Your task to perform on an android device: turn on showing notifications on the lock screen Image 0: 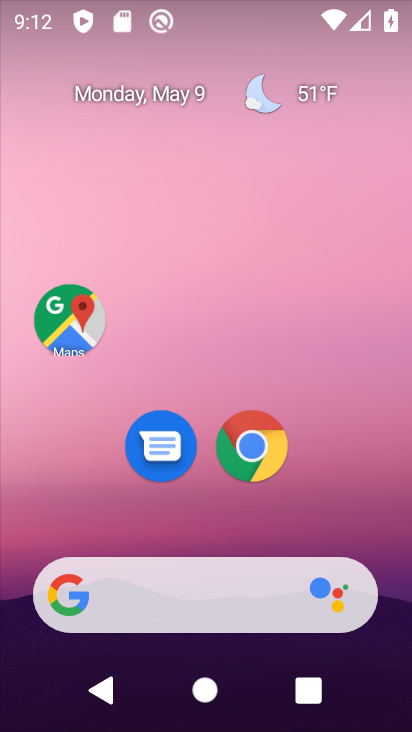
Step 0: drag from (337, 494) to (303, 7)
Your task to perform on an android device: turn on showing notifications on the lock screen Image 1: 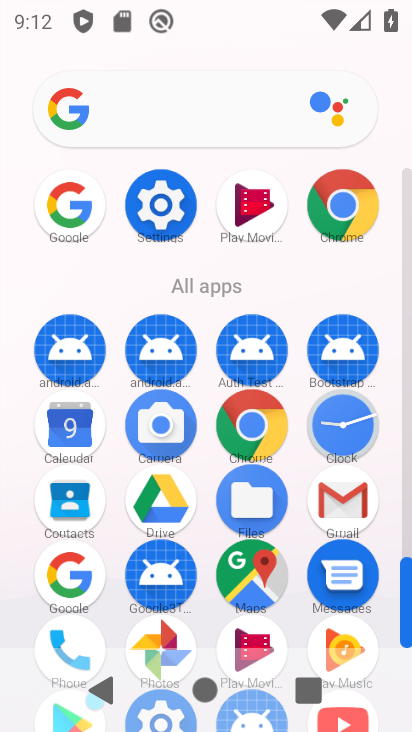
Step 1: click (171, 210)
Your task to perform on an android device: turn on showing notifications on the lock screen Image 2: 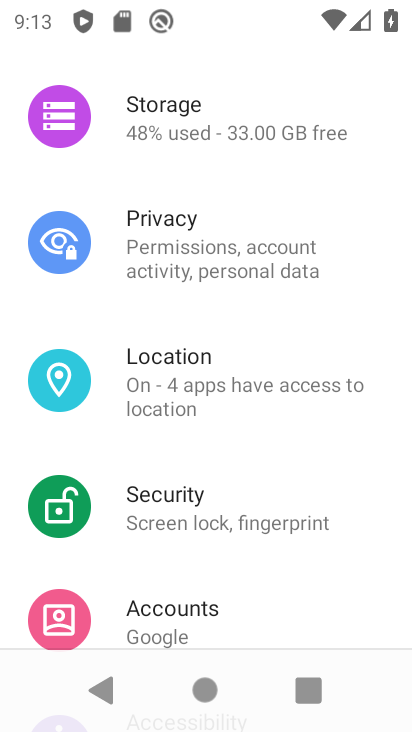
Step 2: drag from (270, 281) to (264, 603)
Your task to perform on an android device: turn on showing notifications on the lock screen Image 3: 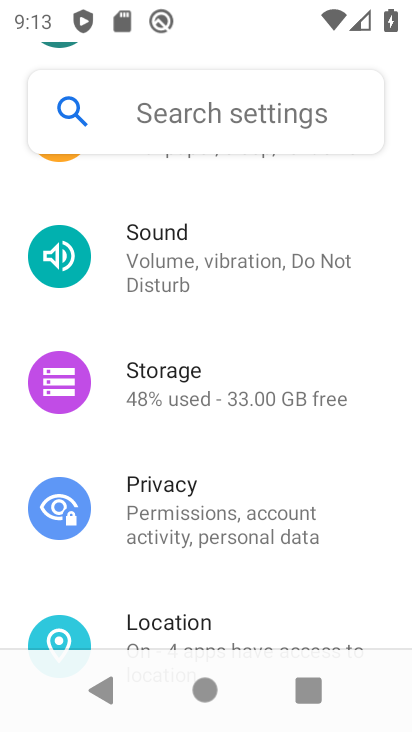
Step 3: drag from (257, 300) to (261, 673)
Your task to perform on an android device: turn on showing notifications on the lock screen Image 4: 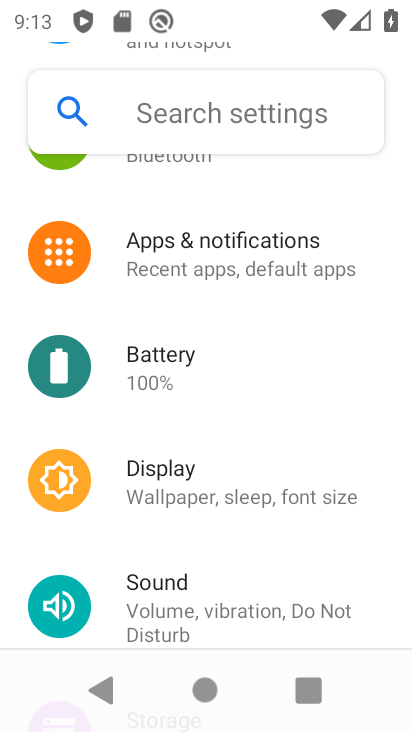
Step 4: drag from (194, 236) to (229, 489)
Your task to perform on an android device: turn on showing notifications on the lock screen Image 5: 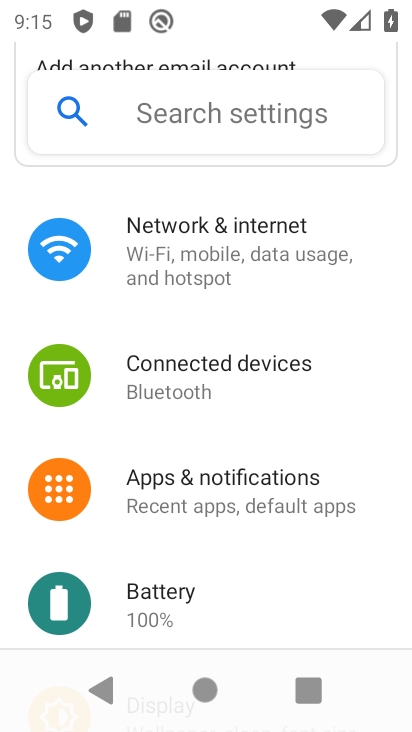
Step 5: click (279, 500)
Your task to perform on an android device: turn on showing notifications on the lock screen Image 6: 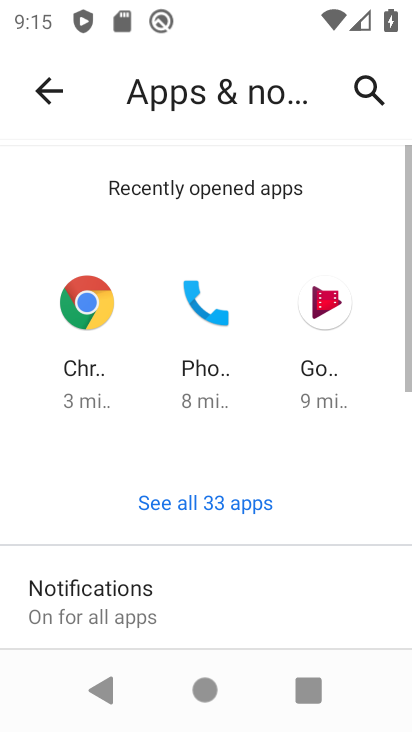
Step 6: drag from (281, 490) to (221, 121)
Your task to perform on an android device: turn on showing notifications on the lock screen Image 7: 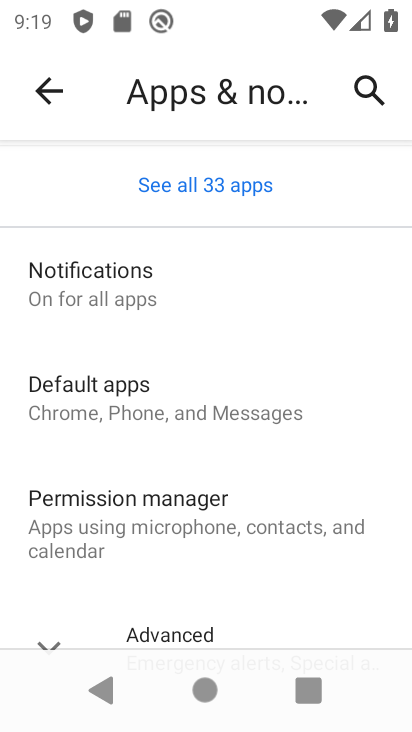
Step 7: click (153, 286)
Your task to perform on an android device: turn on showing notifications on the lock screen Image 8: 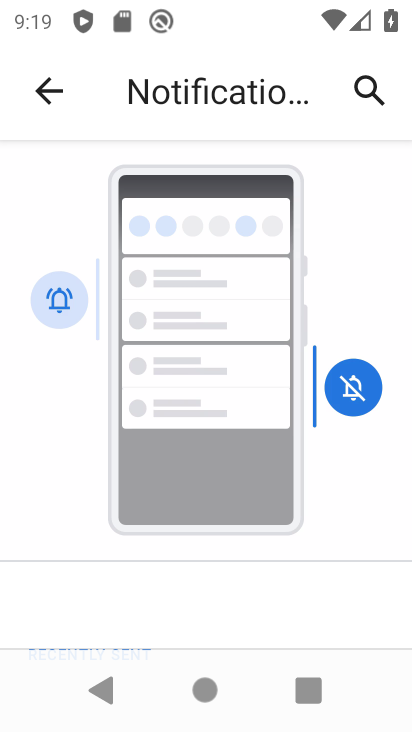
Step 8: drag from (261, 535) to (233, 3)
Your task to perform on an android device: turn on showing notifications on the lock screen Image 9: 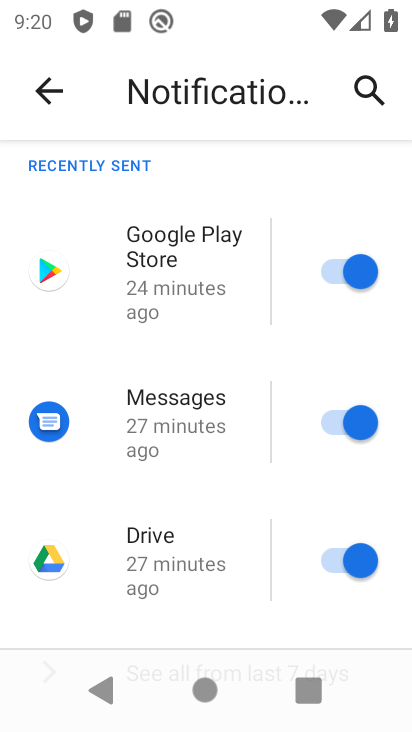
Step 9: drag from (80, 507) to (101, 12)
Your task to perform on an android device: turn on showing notifications on the lock screen Image 10: 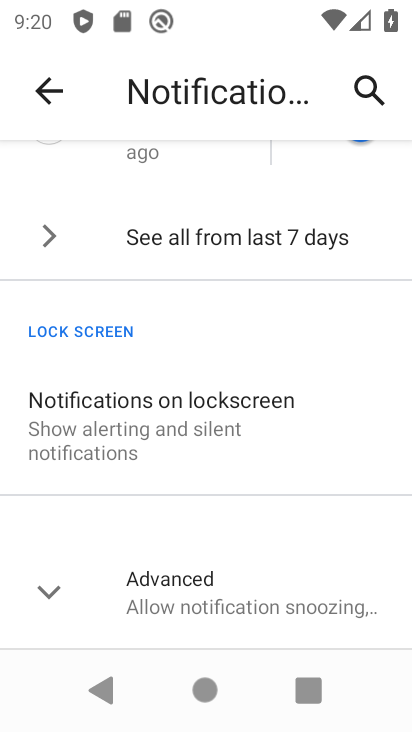
Step 10: click (187, 408)
Your task to perform on an android device: turn on showing notifications on the lock screen Image 11: 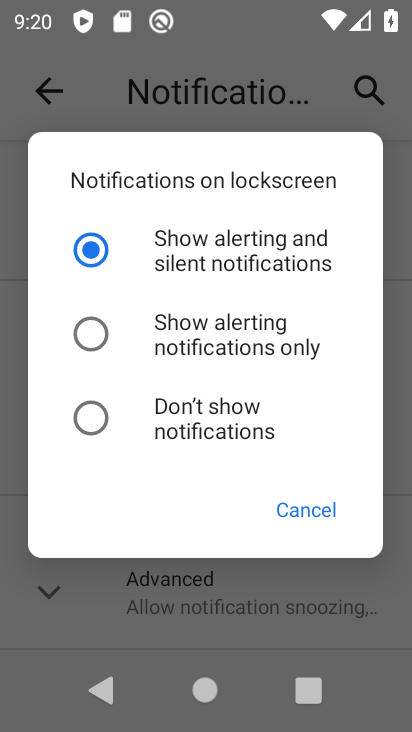
Step 11: task complete